Your task to perform on an android device: Open my contact list Image 0: 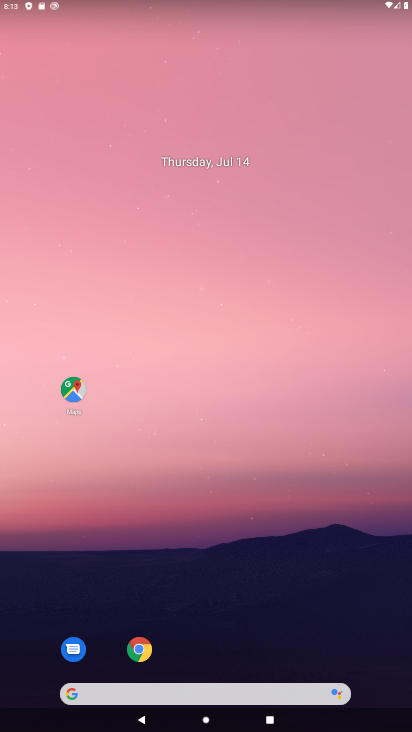
Step 0: drag from (222, 648) to (227, 88)
Your task to perform on an android device: Open my contact list Image 1: 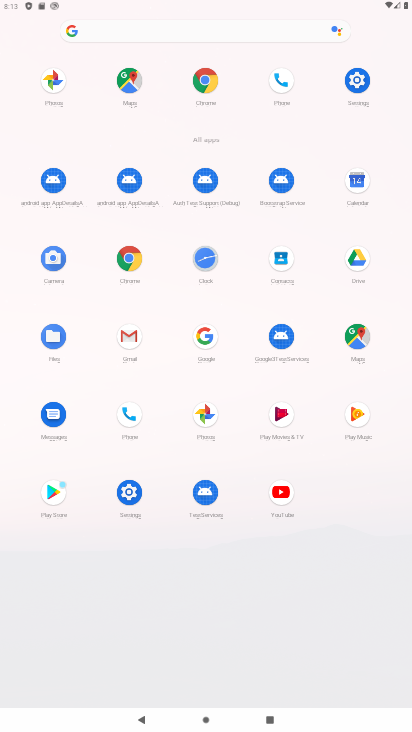
Step 1: click (289, 286)
Your task to perform on an android device: Open my contact list Image 2: 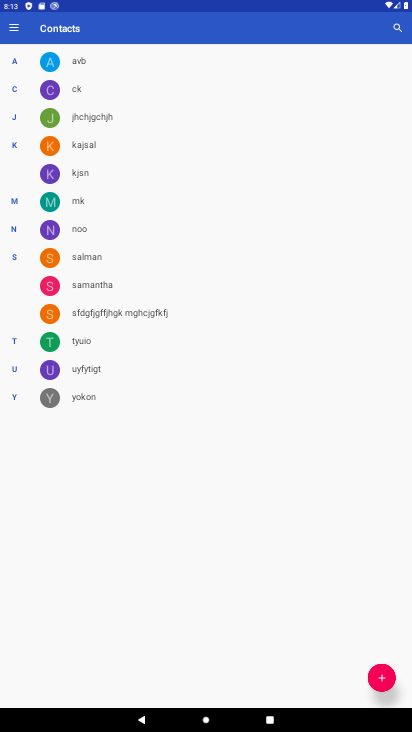
Step 2: task complete